Your task to perform on an android device: star an email in the gmail app Image 0: 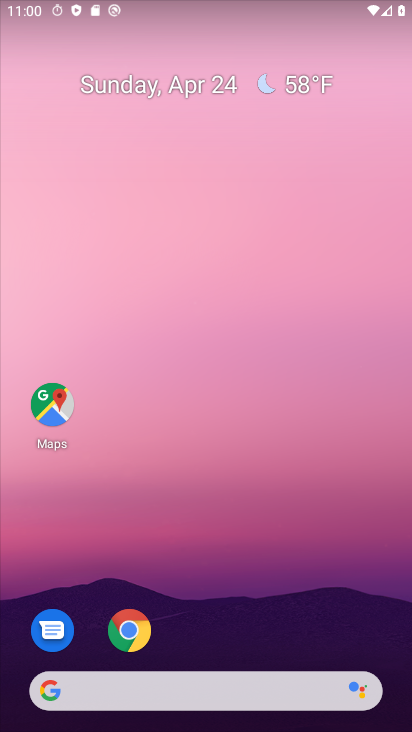
Step 0: drag from (205, 612) to (256, 158)
Your task to perform on an android device: star an email in the gmail app Image 1: 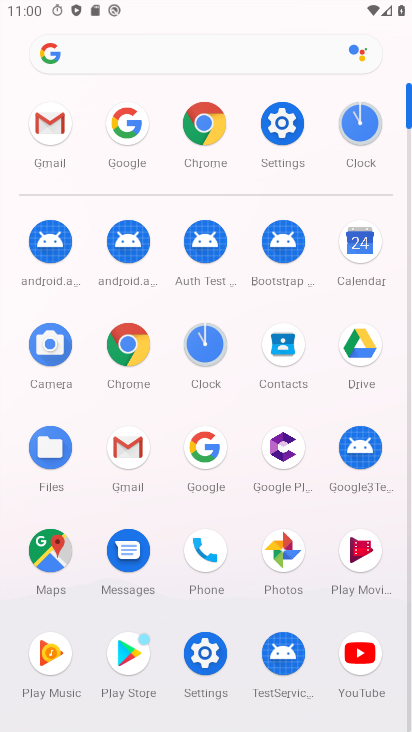
Step 1: click (119, 460)
Your task to perform on an android device: star an email in the gmail app Image 2: 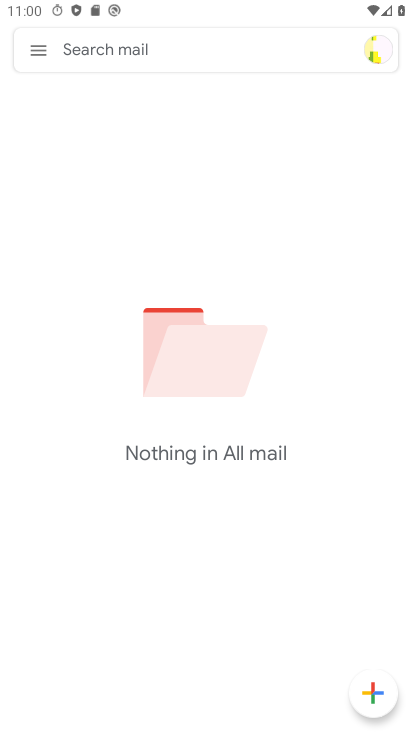
Step 2: click (38, 55)
Your task to perform on an android device: star an email in the gmail app Image 3: 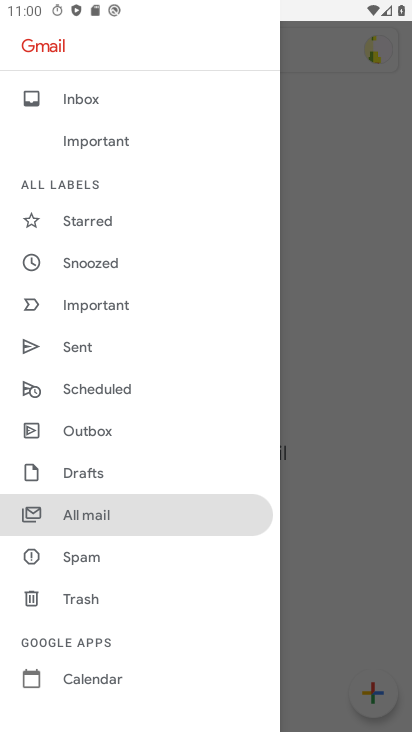
Step 3: click (129, 519)
Your task to perform on an android device: star an email in the gmail app Image 4: 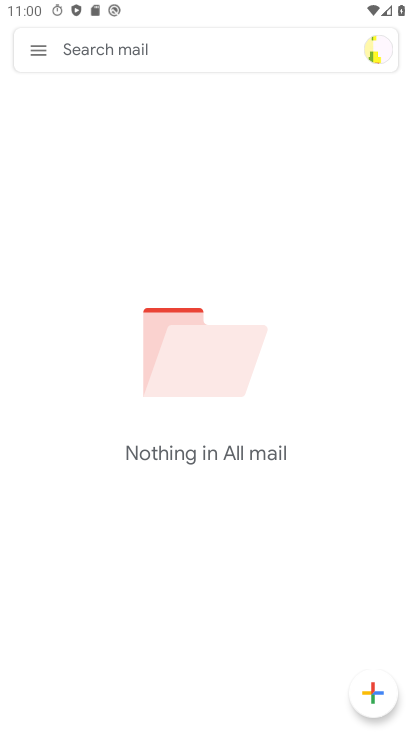
Step 4: task complete